Your task to perform on an android device: turn on notifications settings in the gmail app Image 0: 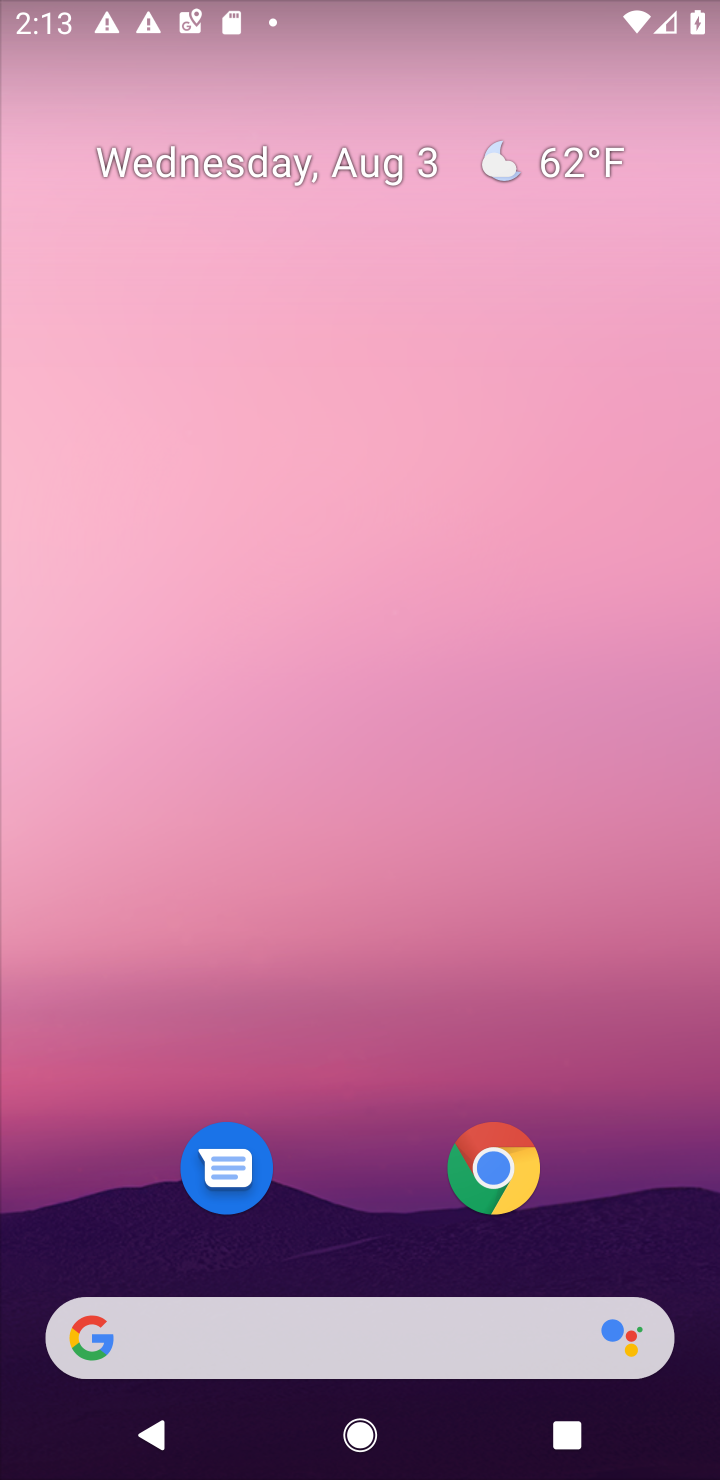
Step 0: drag from (674, 1242) to (594, 202)
Your task to perform on an android device: turn on notifications settings in the gmail app Image 1: 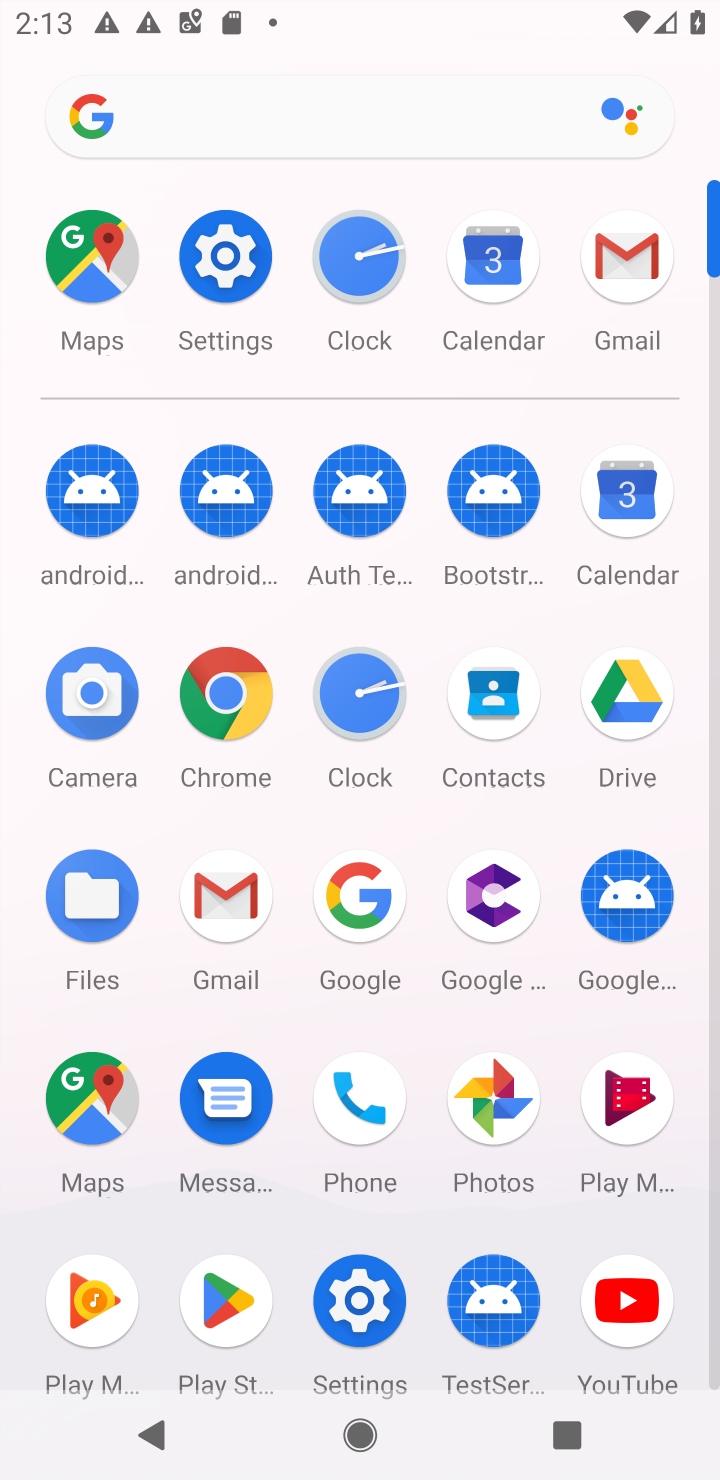
Step 1: click (226, 896)
Your task to perform on an android device: turn on notifications settings in the gmail app Image 2: 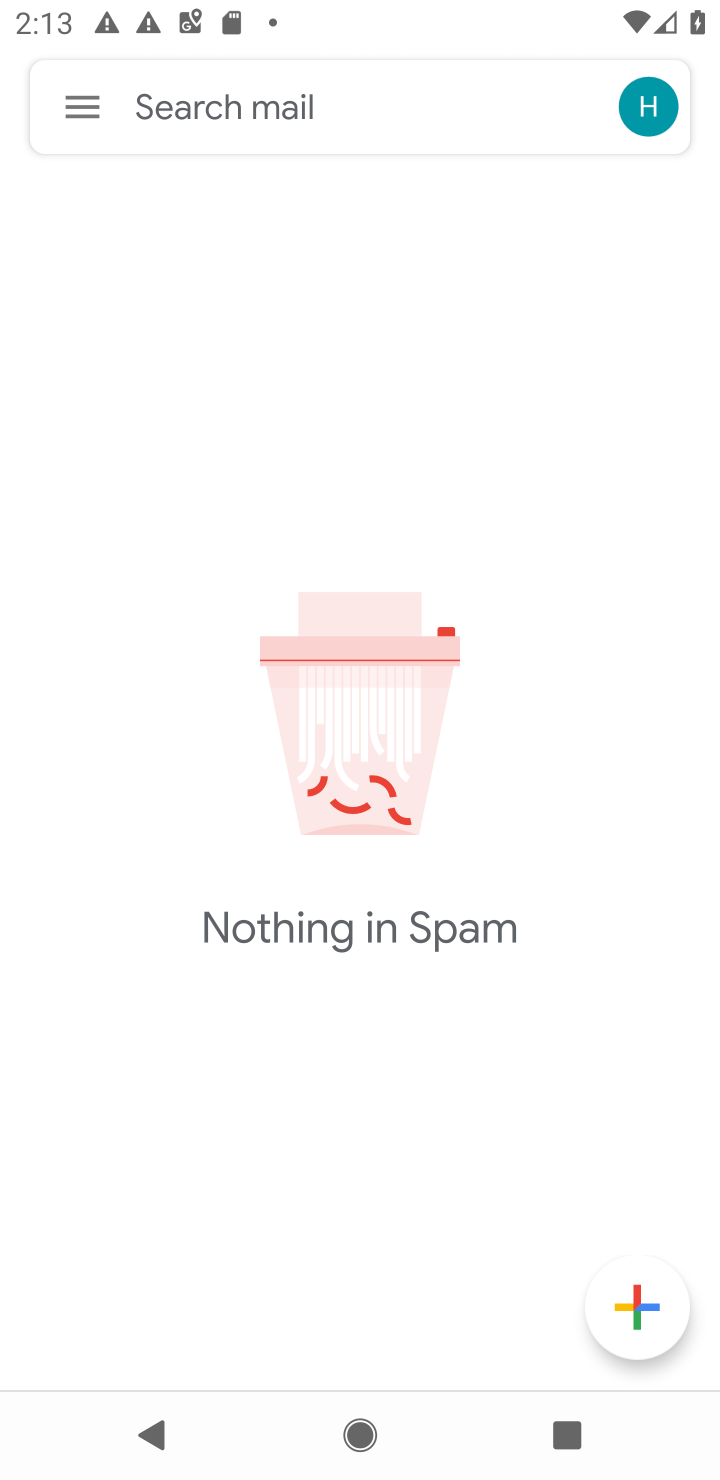
Step 2: click (91, 110)
Your task to perform on an android device: turn on notifications settings in the gmail app Image 3: 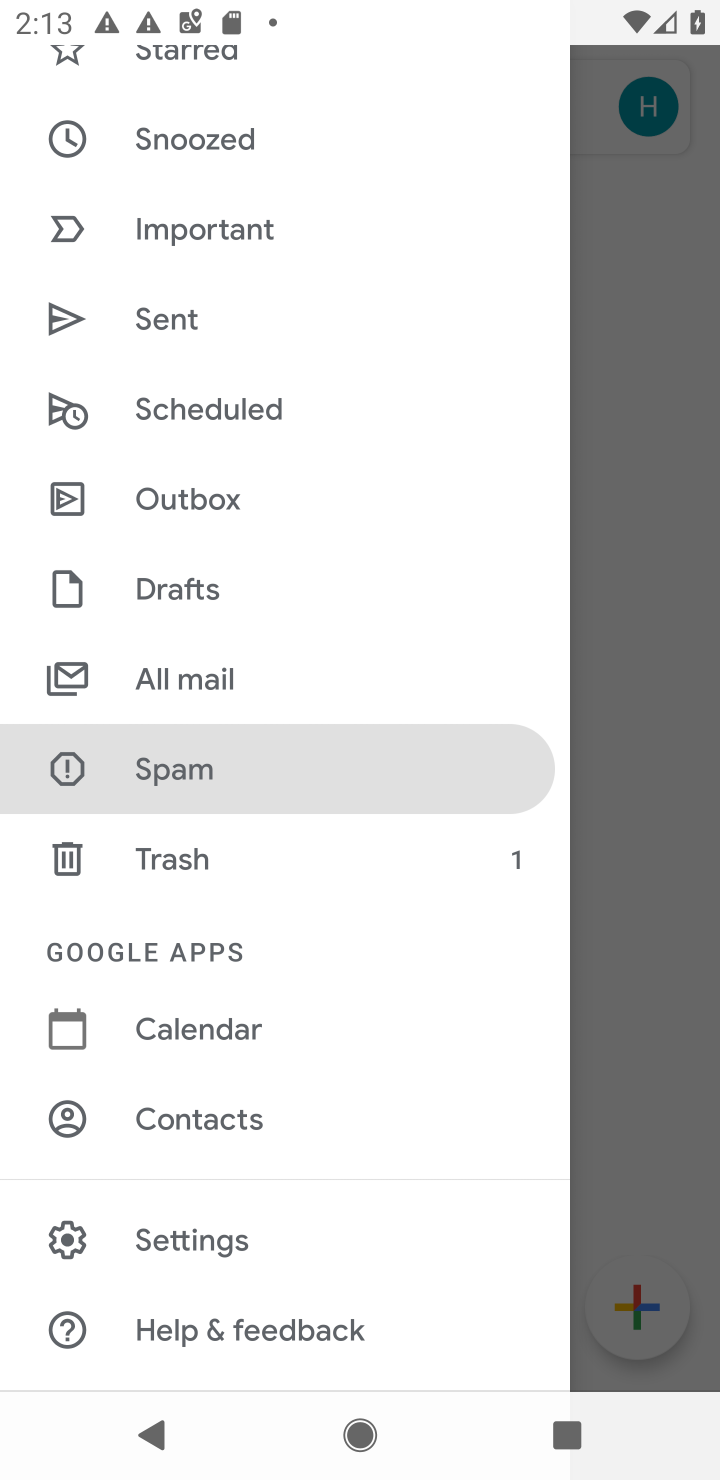
Step 3: click (178, 1222)
Your task to perform on an android device: turn on notifications settings in the gmail app Image 4: 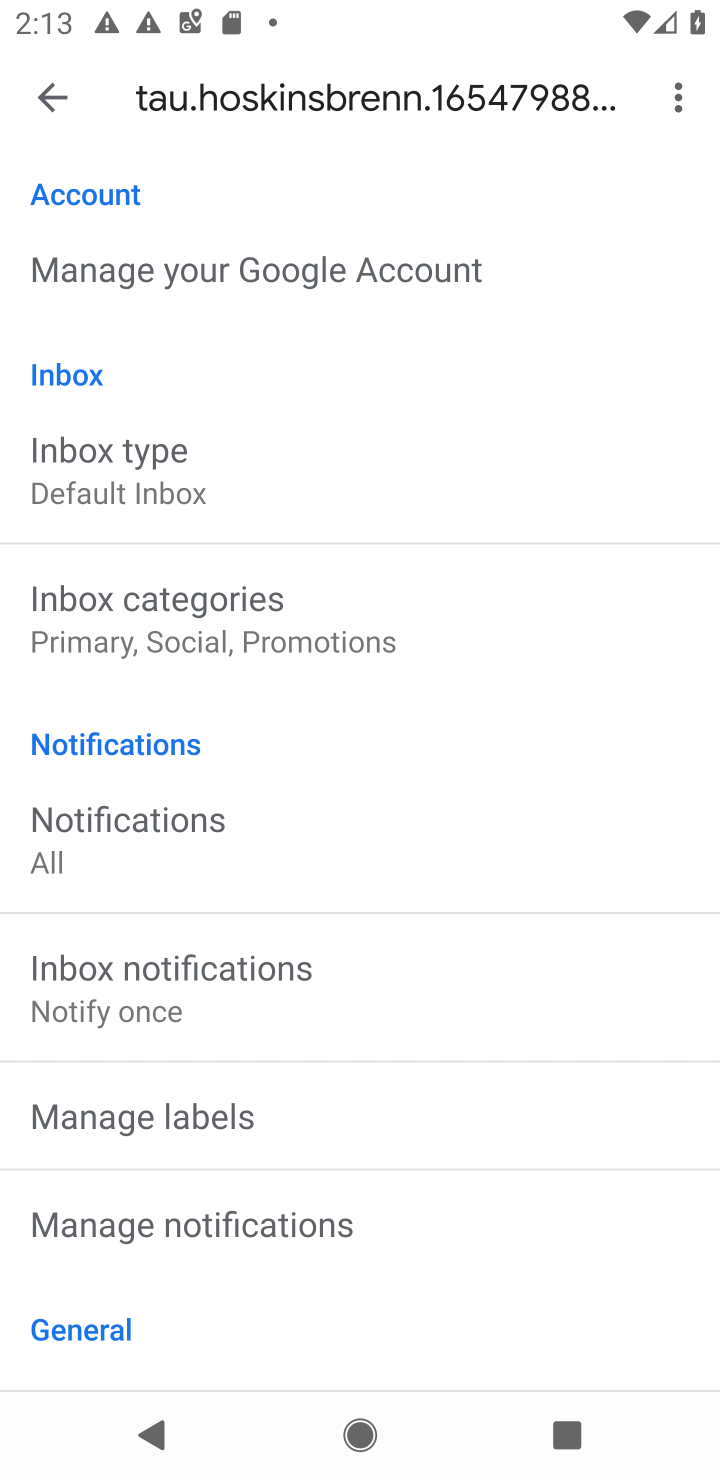
Step 4: click (208, 1220)
Your task to perform on an android device: turn on notifications settings in the gmail app Image 5: 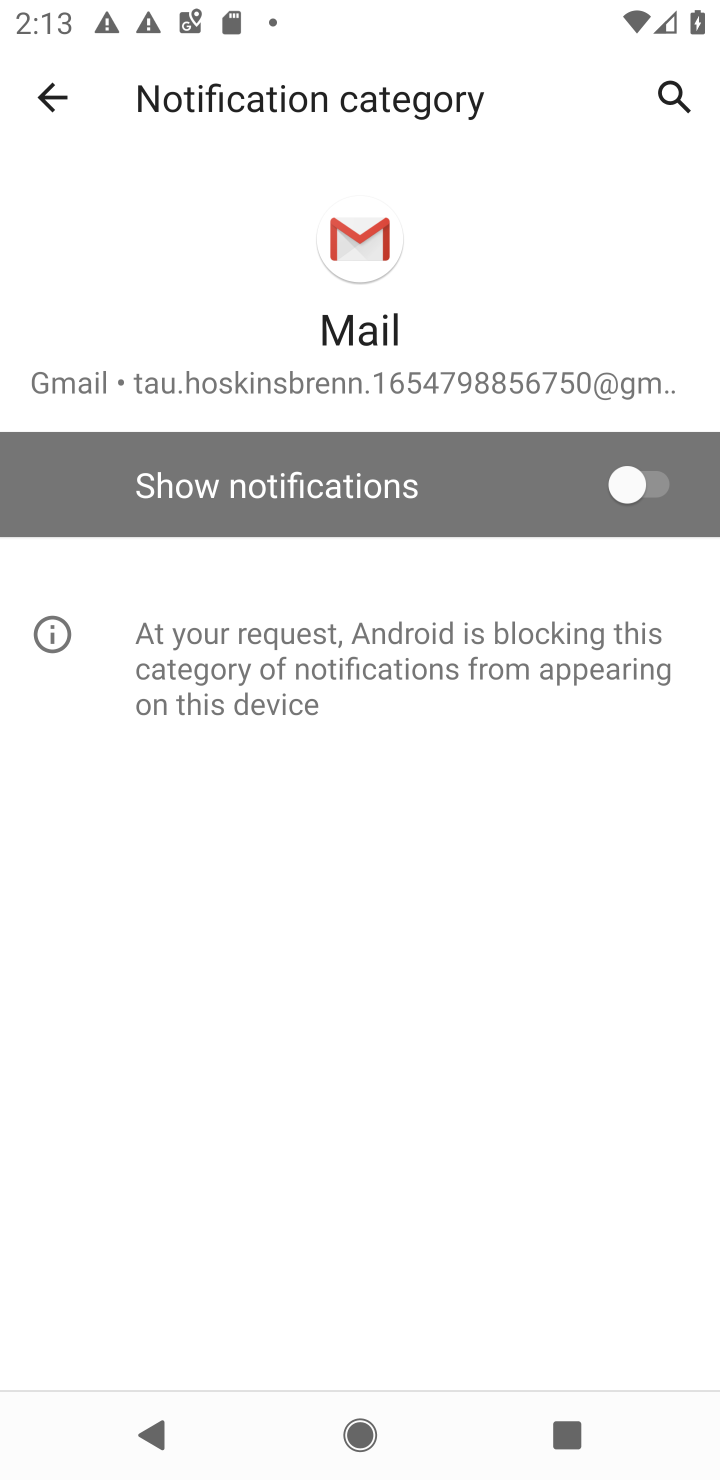
Step 5: click (656, 493)
Your task to perform on an android device: turn on notifications settings in the gmail app Image 6: 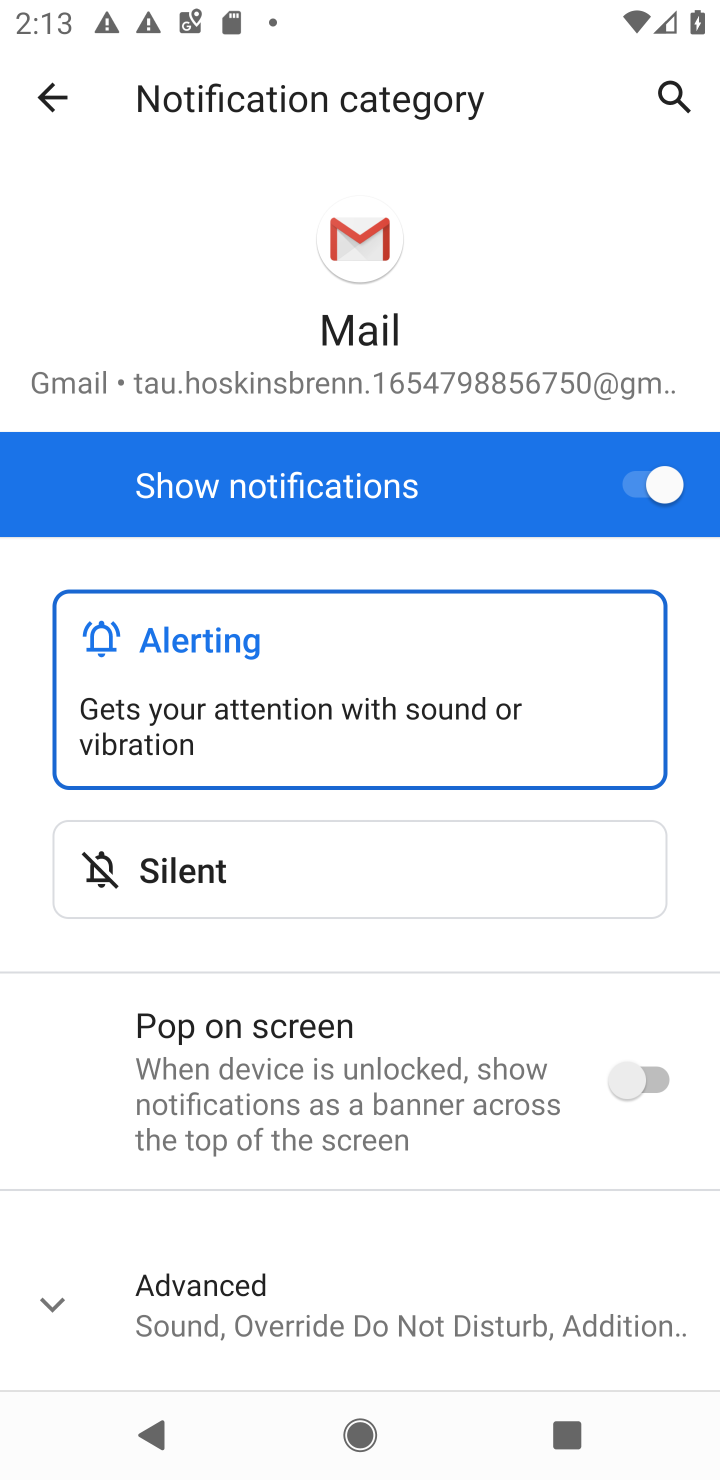
Step 6: task complete